Your task to perform on an android device: move a message to another label in the gmail app Image 0: 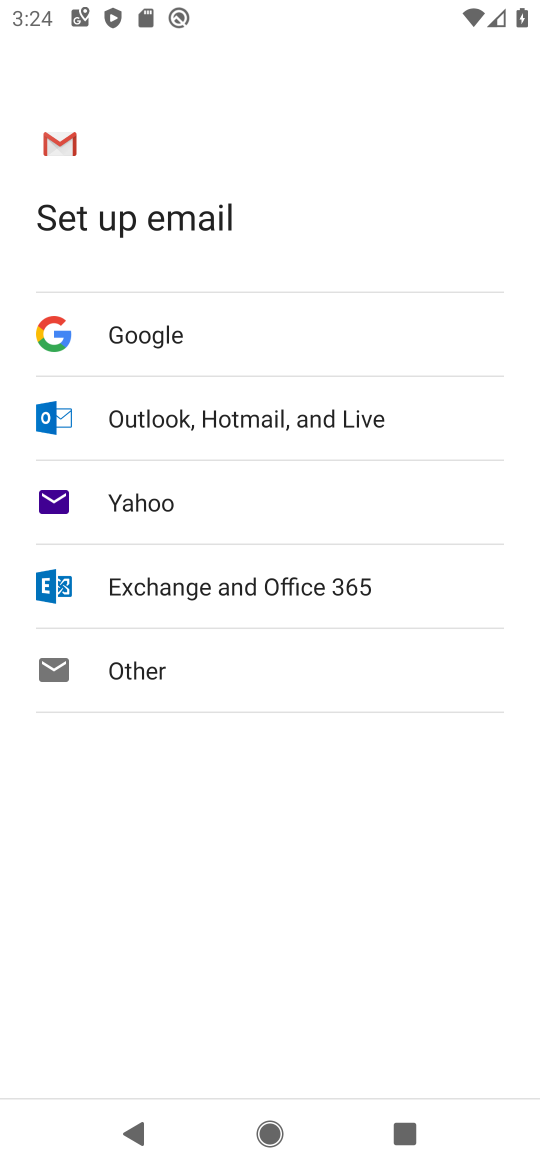
Step 0: press home button
Your task to perform on an android device: move a message to another label in the gmail app Image 1: 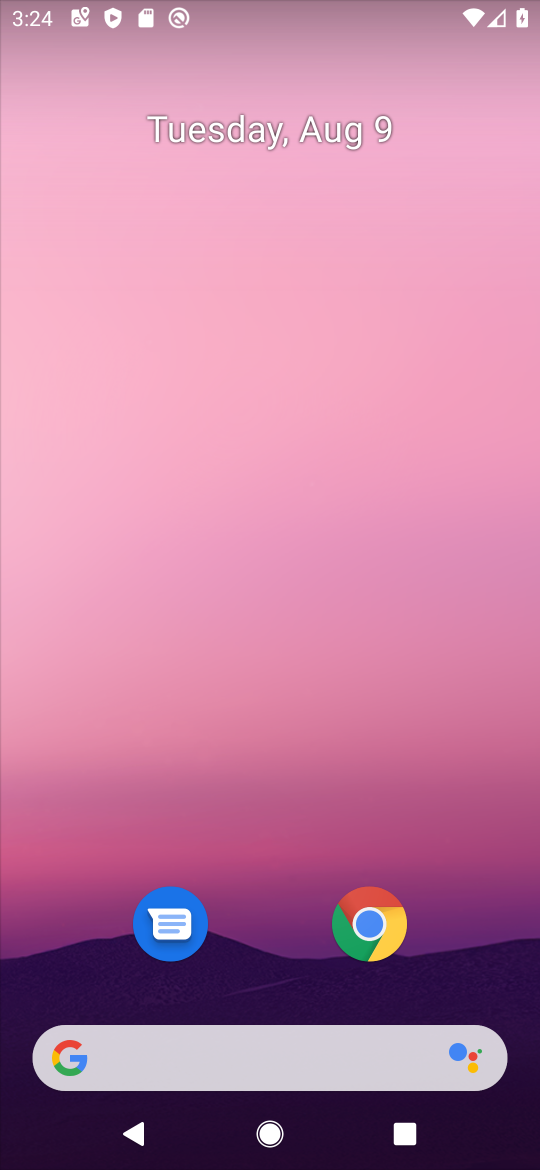
Step 1: drag from (263, 1040) to (289, 90)
Your task to perform on an android device: move a message to another label in the gmail app Image 2: 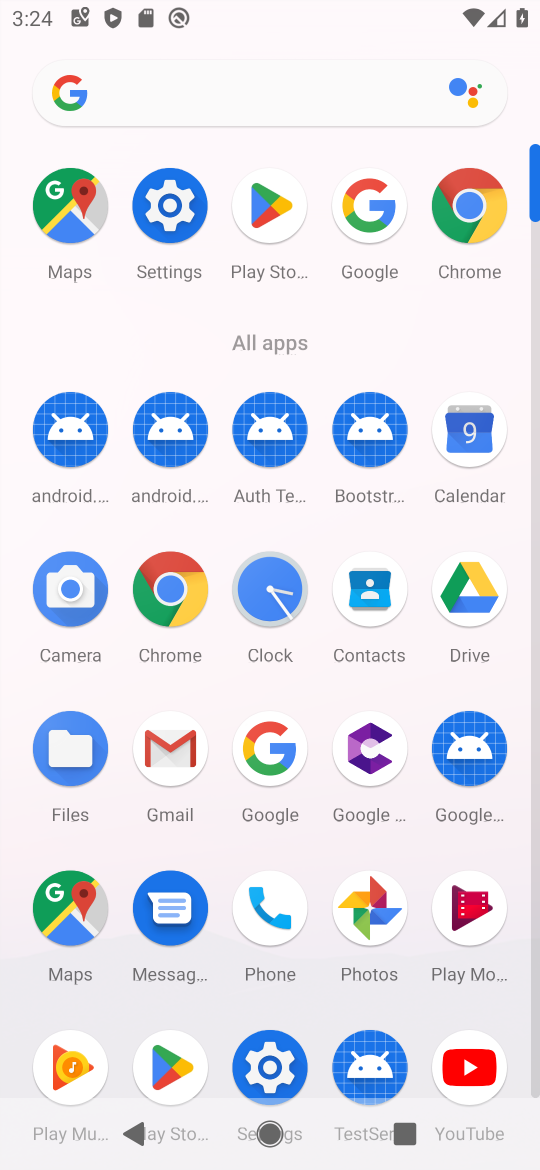
Step 2: click (171, 741)
Your task to perform on an android device: move a message to another label in the gmail app Image 3: 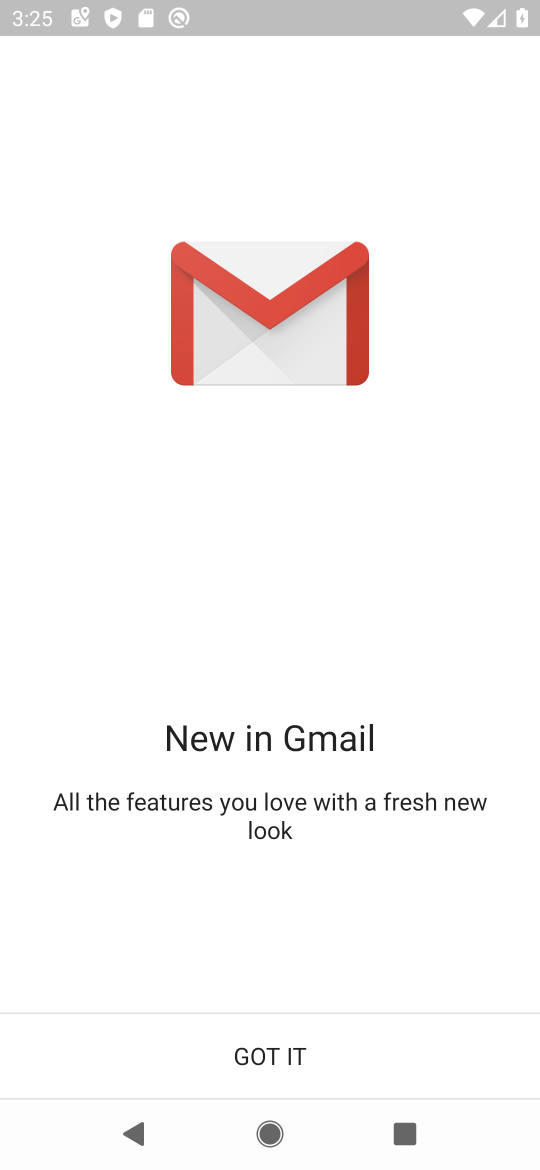
Step 3: click (265, 1063)
Your task to perform on an android device: move a message to another label in the gmail app Image 4: 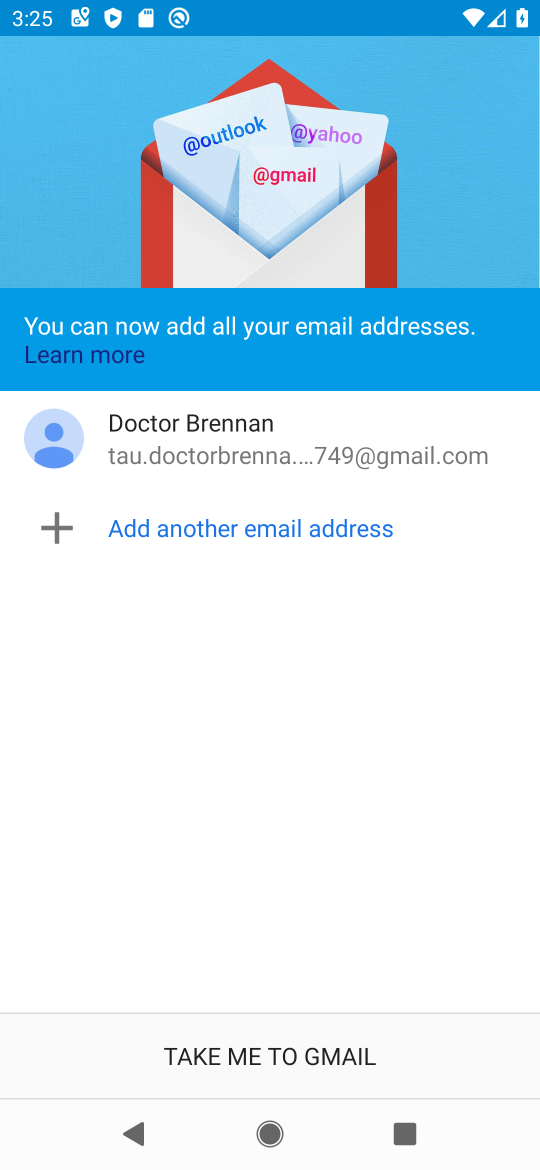
Step 4: click (270, 1057)
Your task to perform on an android device: move a message to another label in the gmail app Image 5: 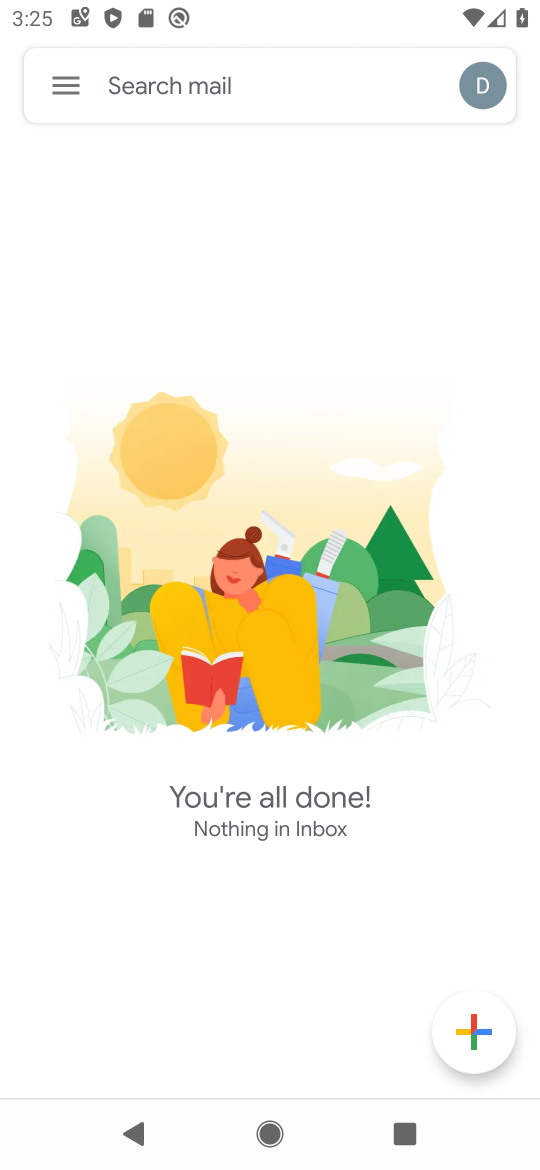
Step 5: click (68, 81)
Your task to perform on an android device: move a message to another label in the gmail app Image 6: 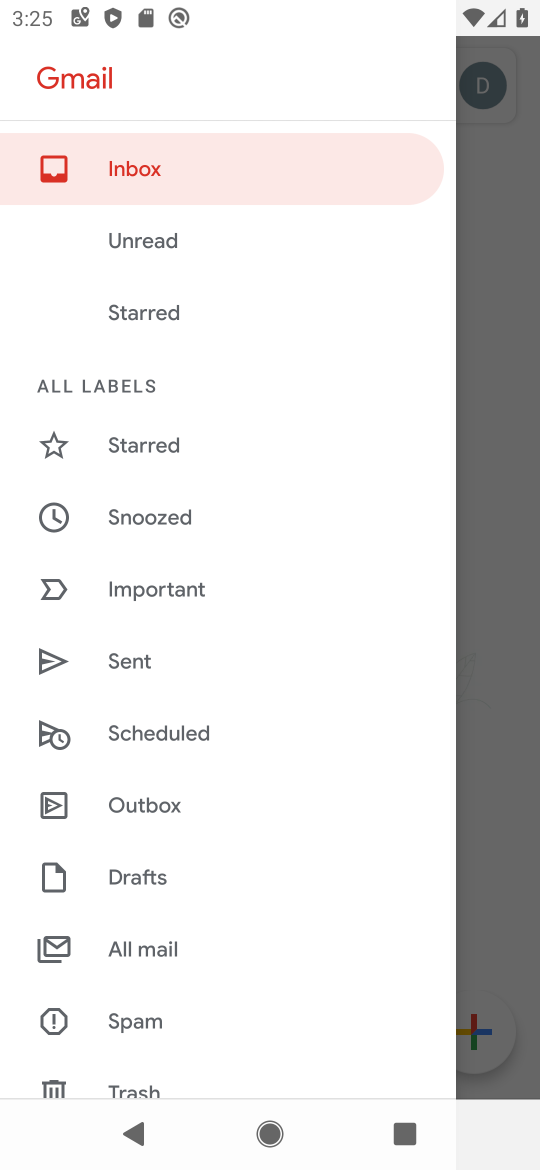
Step 6: click (154, 955)
Your task to perform on an android device: move a message to another label in the gmail app Image 7: 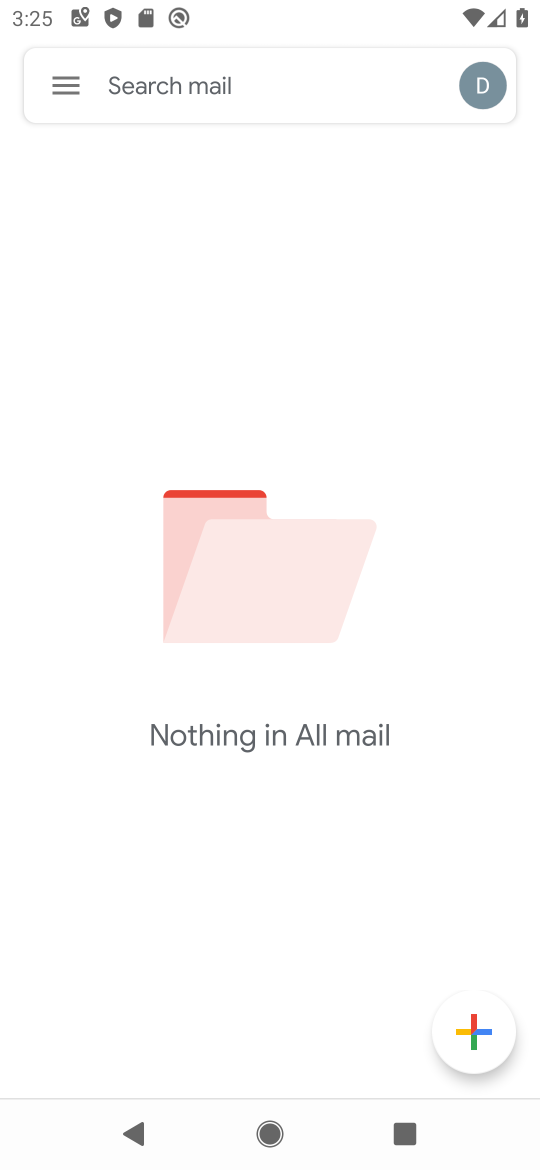
Step 7: click (61, 84)
Your task to perform on an android device: move a message to another label in the gmail app Image 8: 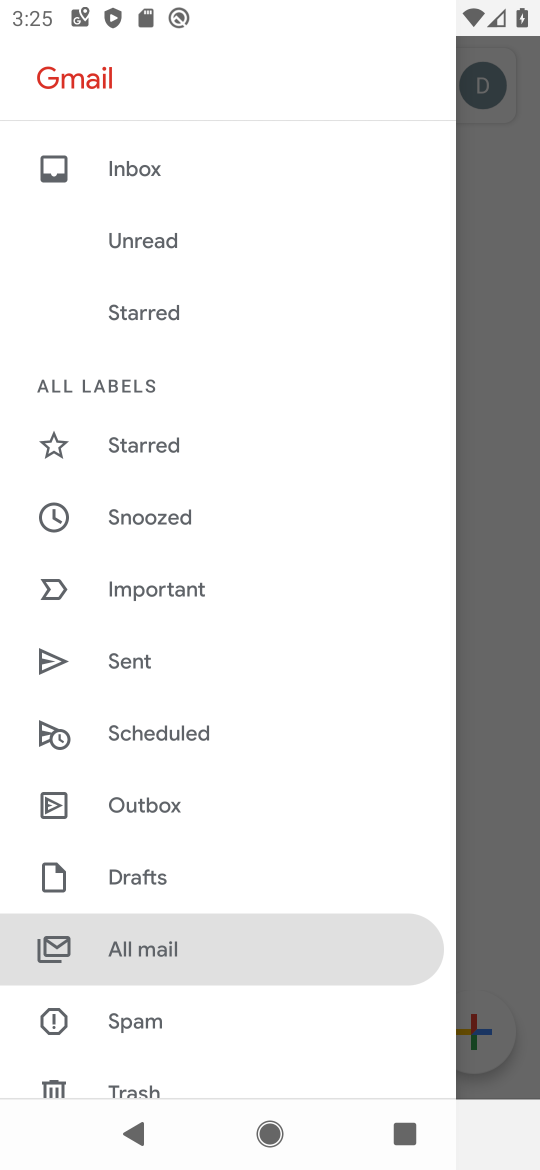
Step 8: task complete